Your task to perform on an android device: visit the assistant section in the google photos Image 0: 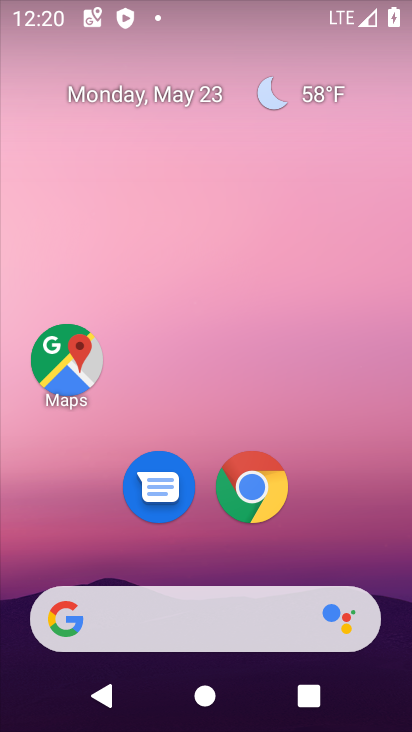
Step 0: drag from (391, 608) to (344, 81)
Your task to perform on an android device: visit the assistant section in the google photos Image 1: 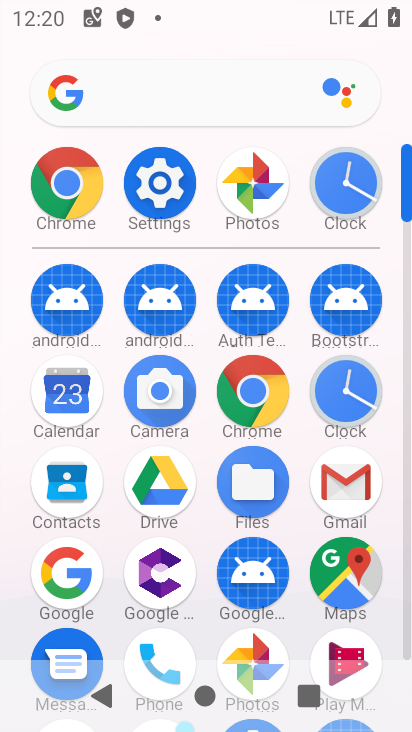
Step 1: click (411, 645)
Your task to perform on an android device: visit the assistant section in the google photos Image 2: 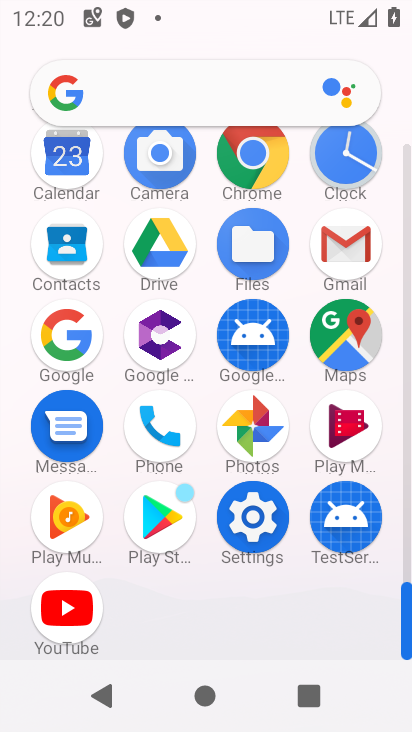
Step 2: click (251, 426)
Your task to perform on an android device: visit the assistant section in the google photos Image 3: 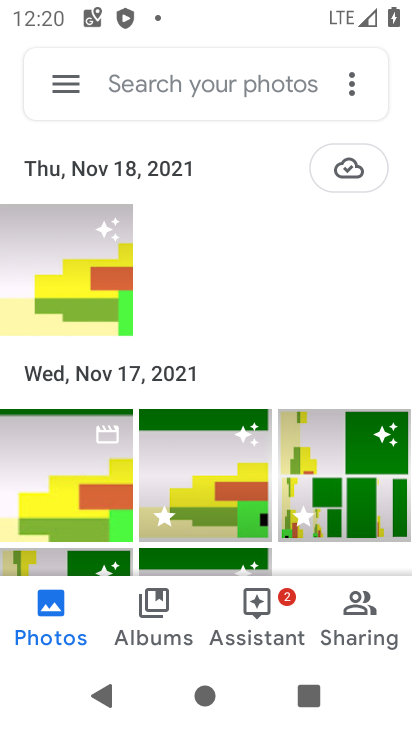
Step 3: click (257, 604)
Your task to perform on an android device: visit the assistant section in the google photos Image 4: 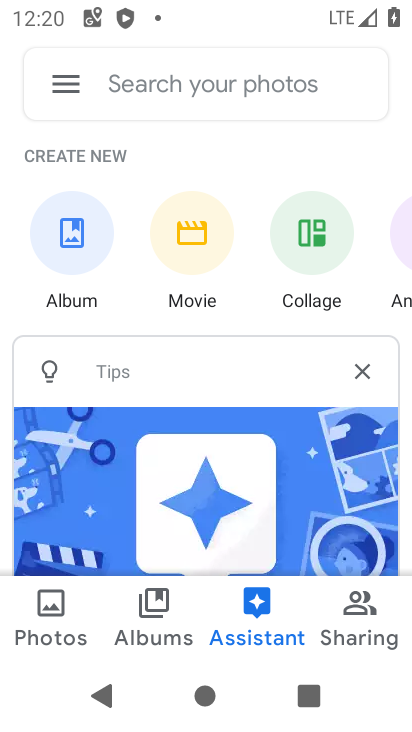
Step 4: task complete